Your task to perform on an android device: Go to Amazon Image 0: 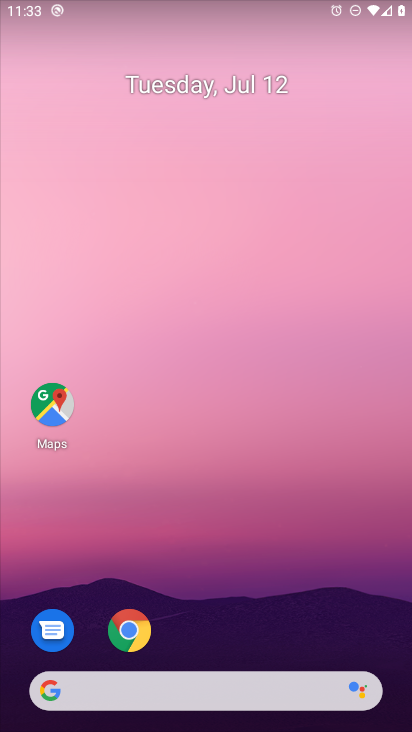
Step 0: press home button
Your task to perform on an android device: Go to Amazon Image 1: 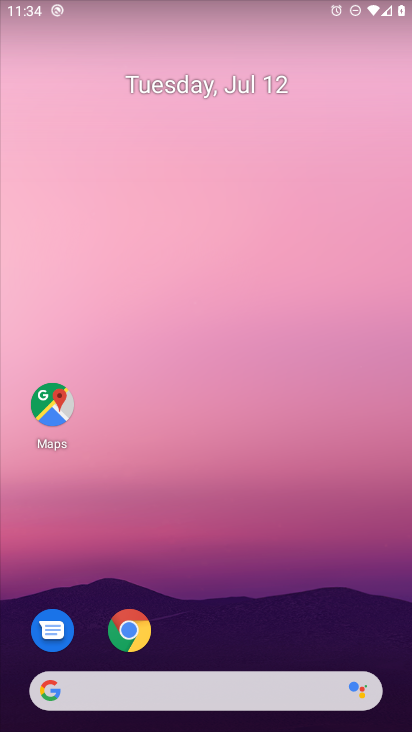
Step 1: click (212, 698)
Your task to perform on an android device: Go to Amazon Image 2: 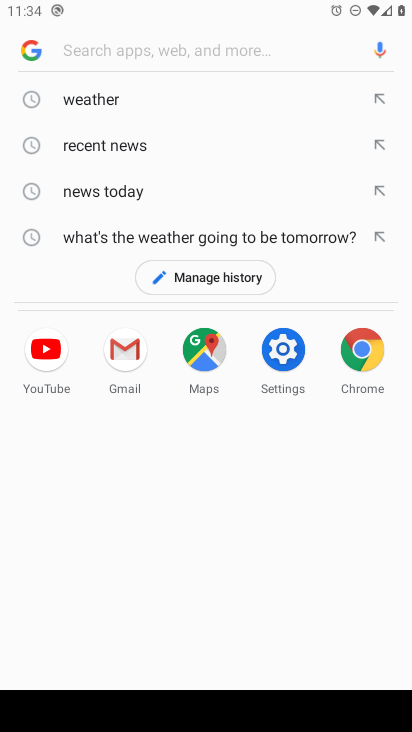
Step 2: type " Amazon"
Your task to perform on an android device: Go to Amazon Image 3: 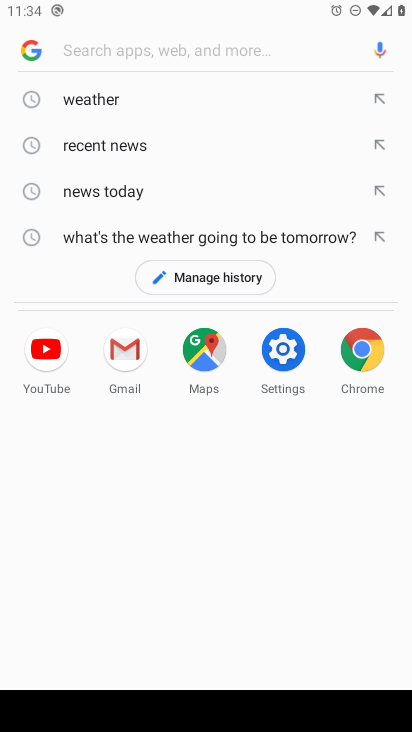
Step 3: click (100, 55)
Your task to perform on an android device: Go to Amazon Image 4: 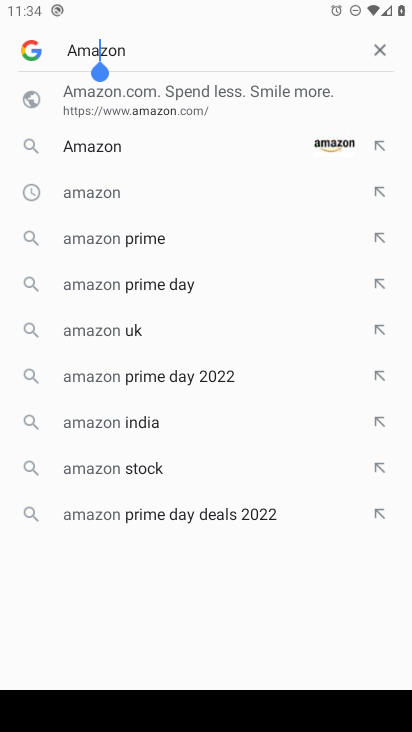
Step 4: click (343, 145)
Your task to perform on an android device: Go to Amazon Image 5: 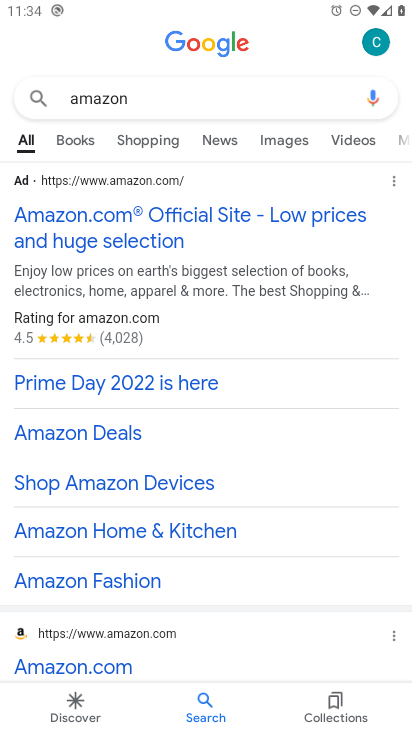
Step 5: click (79, 664)
Your task to perform on an android device: Go to Amazon Image 6: 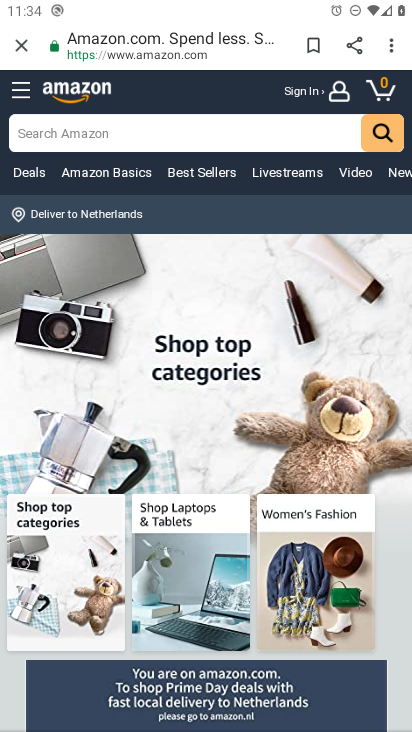
Step 6: task complete